Your task to perform on an android device: Open calendar and show me the third week of next month Image 0: 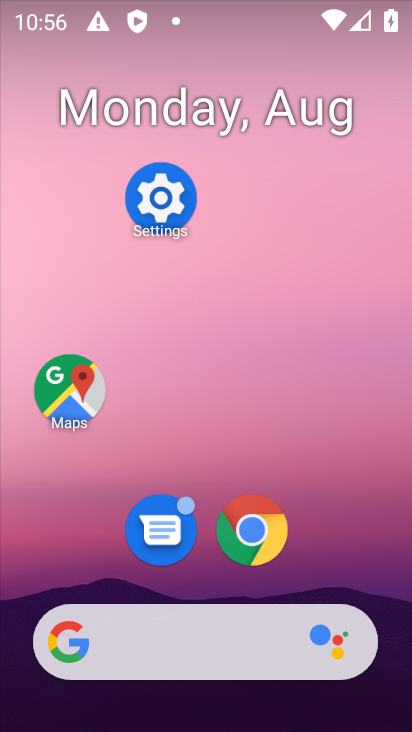
Step 0: drag from (271, 398) to (221, 65)
Your task to perform on an android device: Open calendar and show me the third week of next month Image 1: 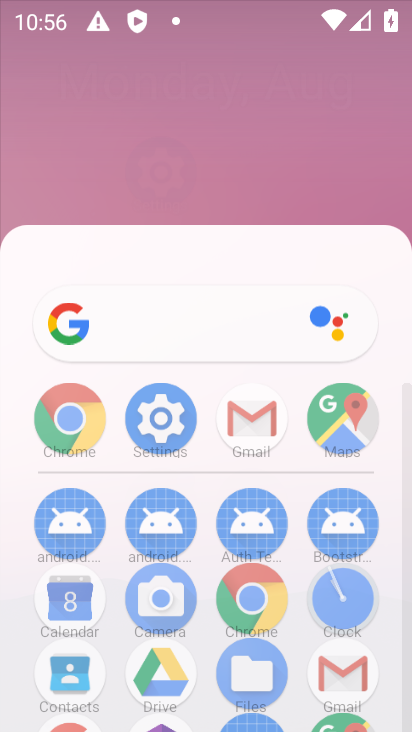
Step 1: click (94, 54)
Your task to perform on an android device: Open calendar and show me the third week of next month Image 2: 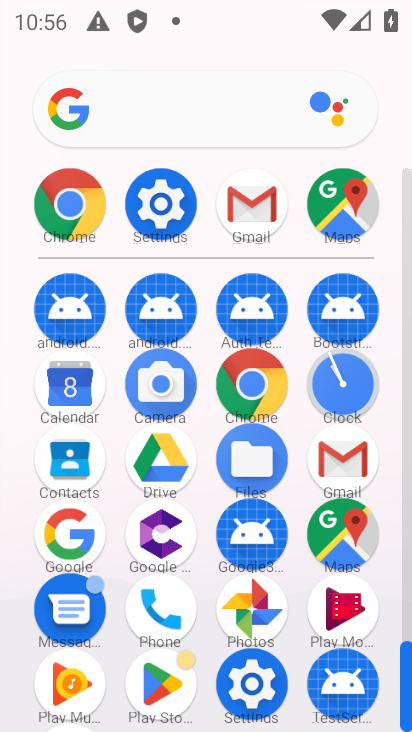
Step 2: click (70, 390)
Your task to perform on an android device: Open calendar and show me the third week of next month Image 3: 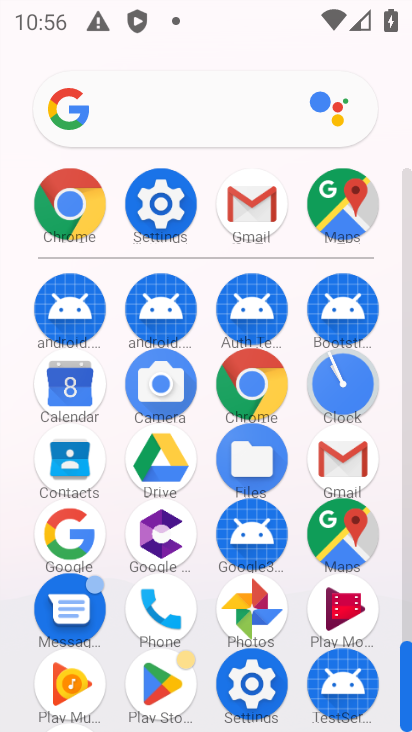
Step 3: click (70, 390)
Your task to perform on an android device: Open calendar and show me the third week of next month Image 4: 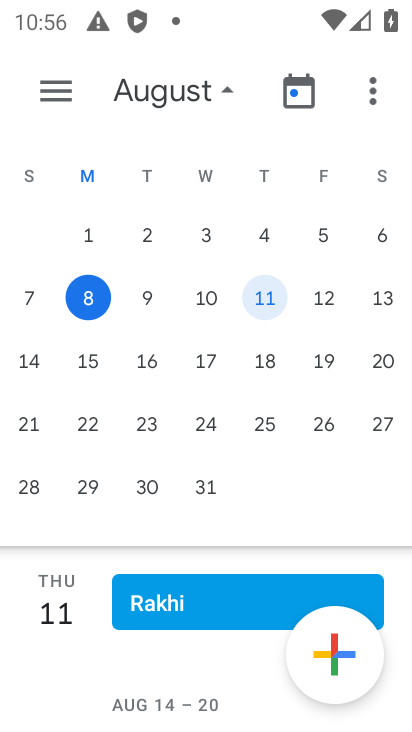
Step 4: click (70, 390)
Your task to perform on an android device: Open calendar and show me the third week of next month Image 5: 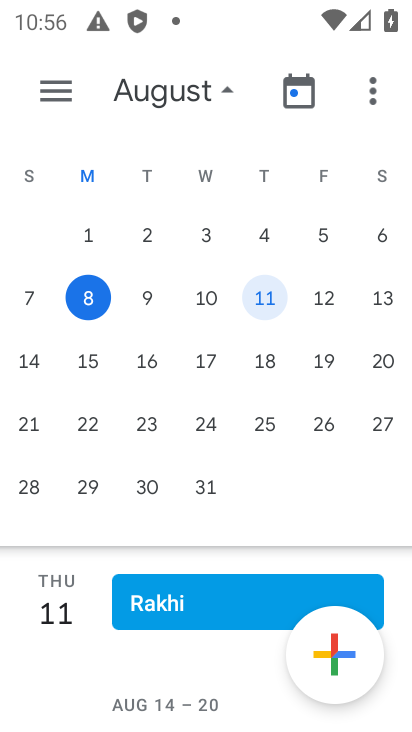
Step 5: click (71, 391)
Your task to perform on an android device: Open calendar and show me the third week of next month Image 6: 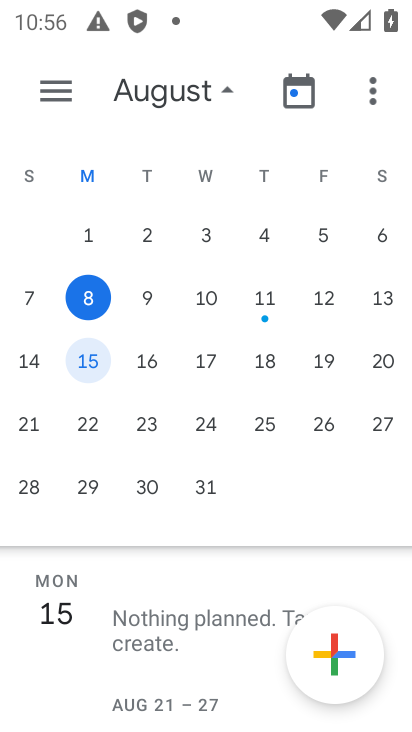
Step 6: drag from (31, 388) to (12, 359)
Your task to perform on an android device: Open calendar and show me the third week of next month Image 7: 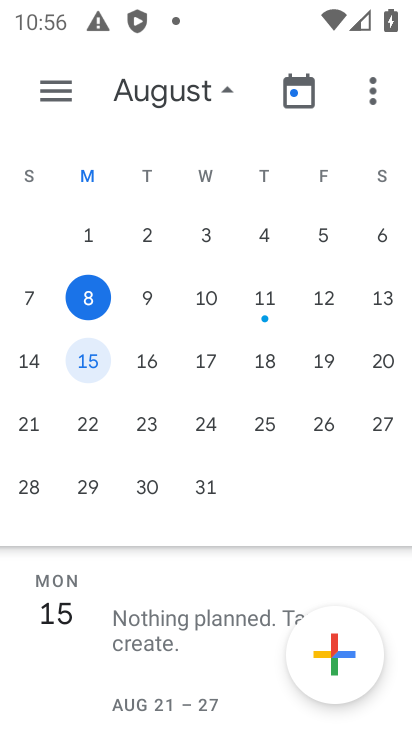
Step 7: drag from (308, 342) to (30, 306)
Your task to perform on an android device: Open calendar and show me the third week of next month Image 8: 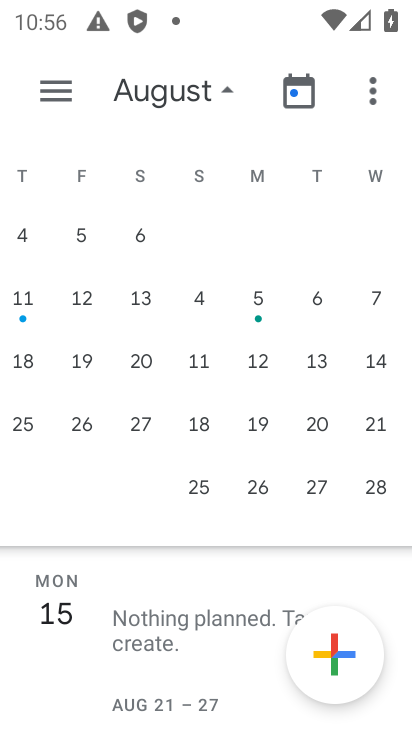
Step 8: drag from (7, 318) to (49, 271)
Your task to perform on an android device: Open calendar and show me the third week of next month Image 9: 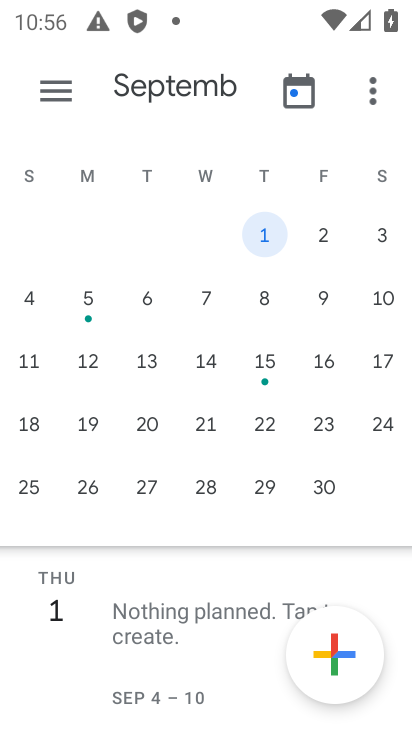
Step 9: drag from (297, 268) to (20, 333)
Your task to perform on an android device: Open calendar and show me the third week of next month Image 10: 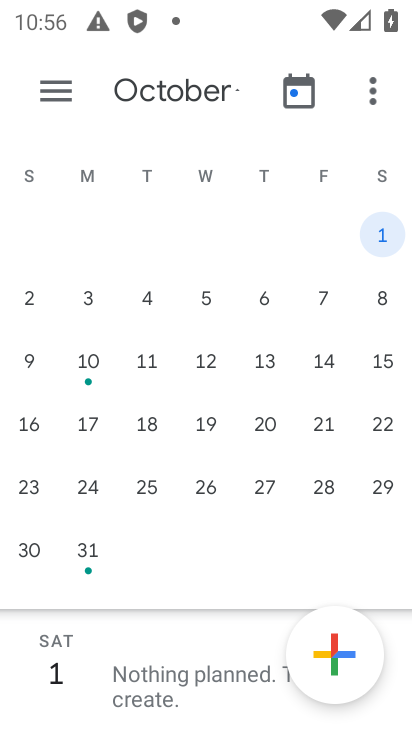
Step 10: drag from (117, 399) to (401, 354)
Your task to perform on an android device: Open calendar and show me the third week of next month Image 11: 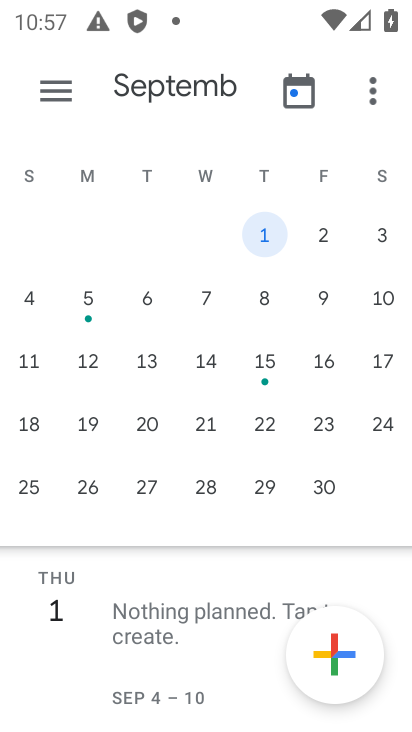
Step 11: click (271, 354)
Your task to perform on an android device: Open calendar and show me the third week of next month Image 12: 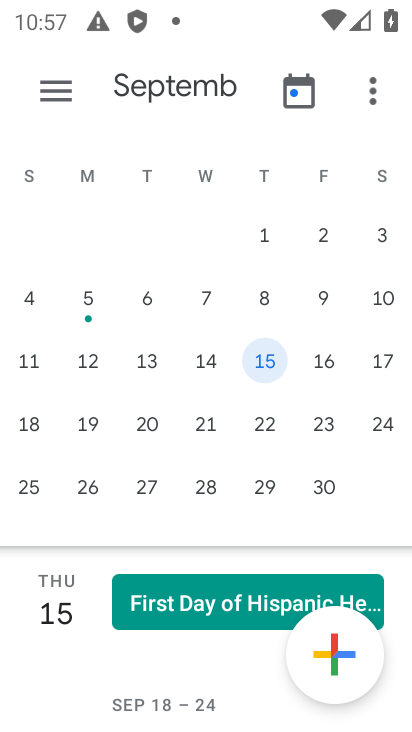
Step 12: click (272, 354)
Your task to perform on an android device: Open calendar and show me the third week of next month Image 13: 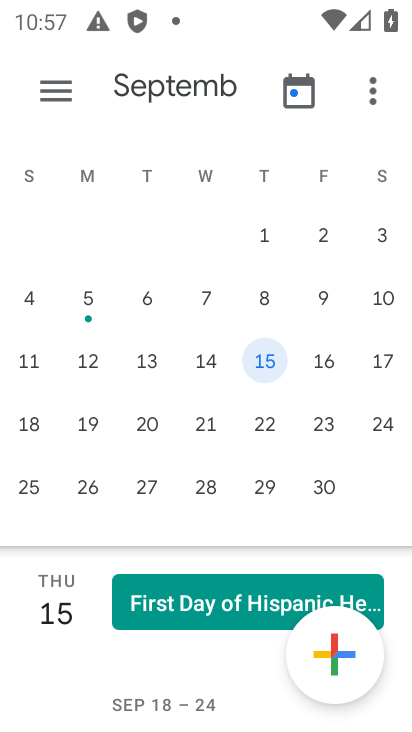
Step 13: click (272, 354)
Your task to perform on an android device: Open calendar and show me the third week of next month Image 14: 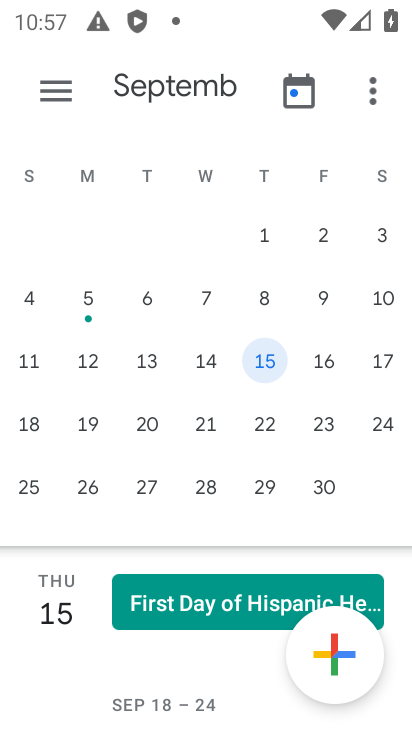
Step 14: task complete